Your task to perform on an android device: Search for sushi restaurants on Maps Image 0: 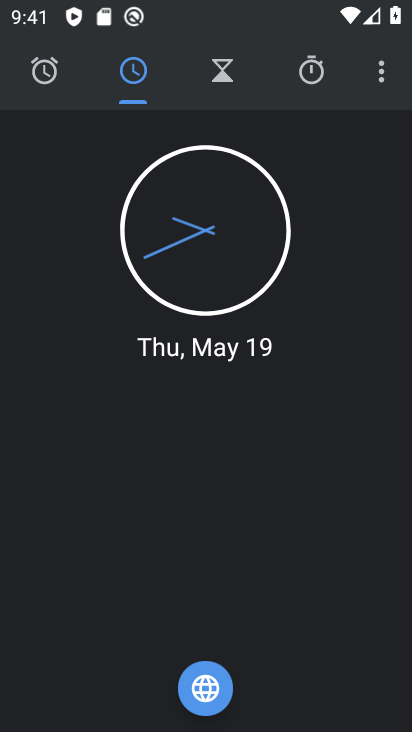
Step 0: press home button
Your task to perform on an android device: Search for sushi restaurants on Maps Image 1: 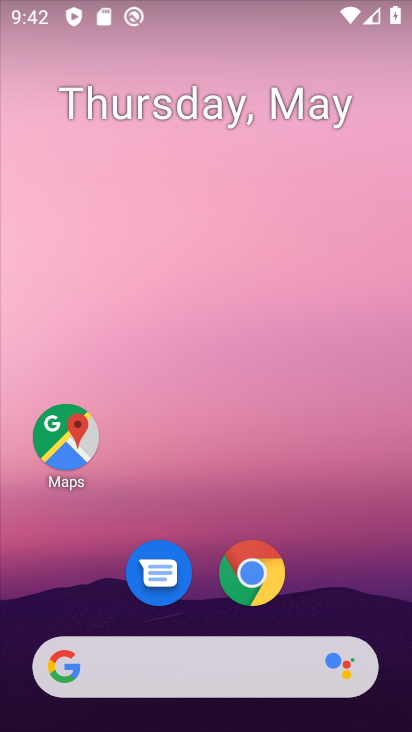
Step 1: click (85, 441)
Your task to perform on an android device: Search for sushi restaurants on Maps Image 2: 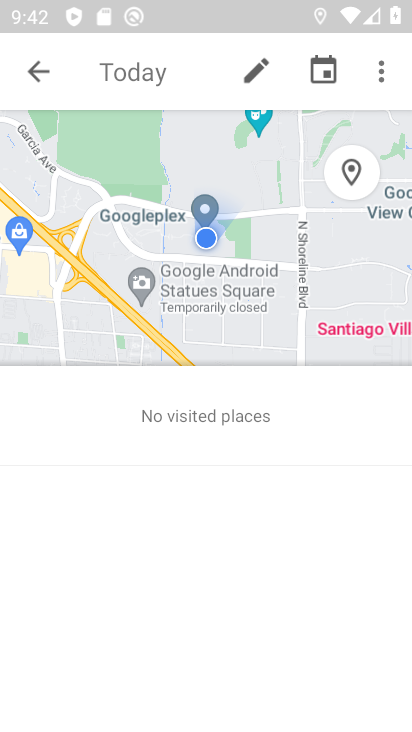
Step 2: click (42, 64)
Your task to perform on an android device: Search for sushi restaurants on Maps Image 3: 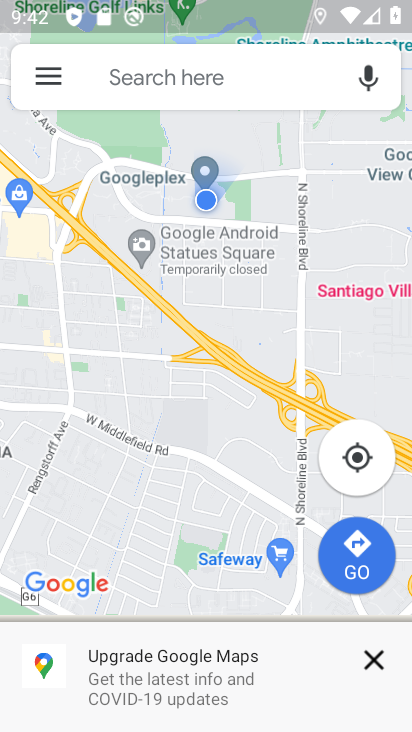
Step 3: click (159, 84)
Your task to perform on an android device: Search for sushi restaurants on Maps Image 4: 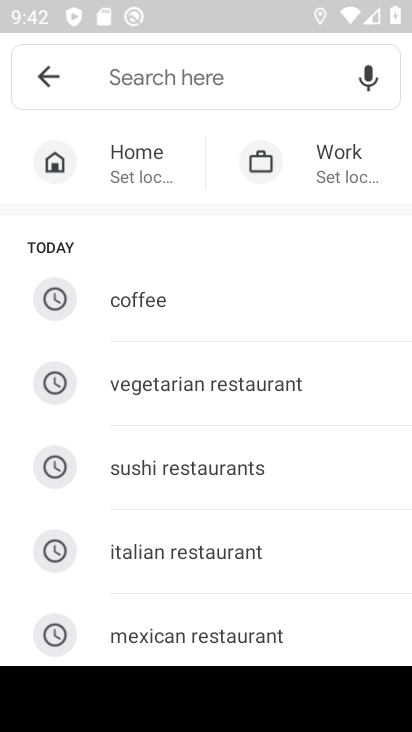
Step 4: click (240, 476)
Your task to perform on an android device: Search for sushi restaurants on Maps Image 5: 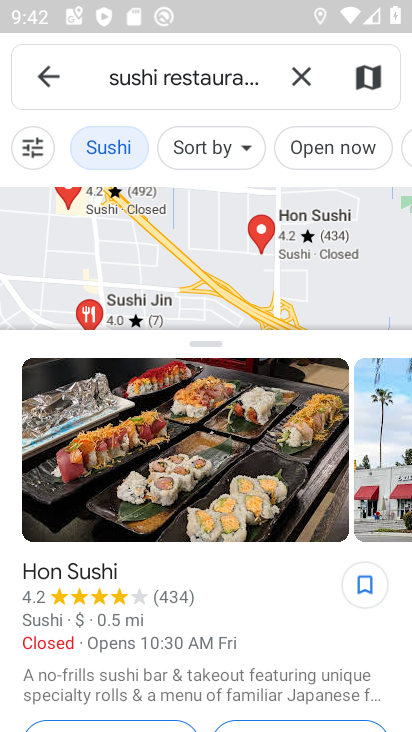
Step 5: task complete